Your task to perform on an android device: change the clock style Image 0: 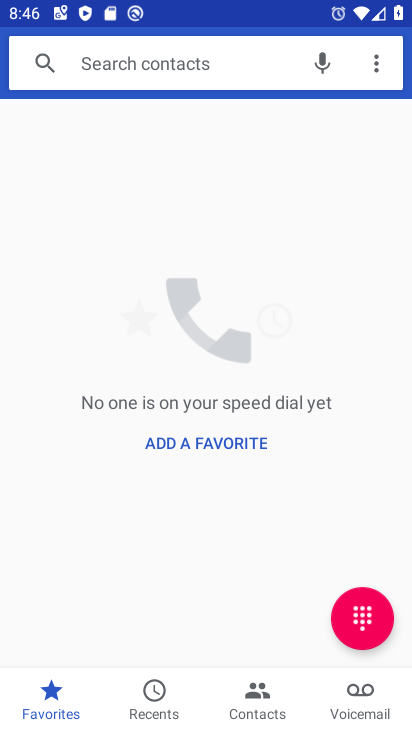
Step 0: drag from (237, 516) to (357, 133)
Your task to perform on an android device: change the clock style Image 1: 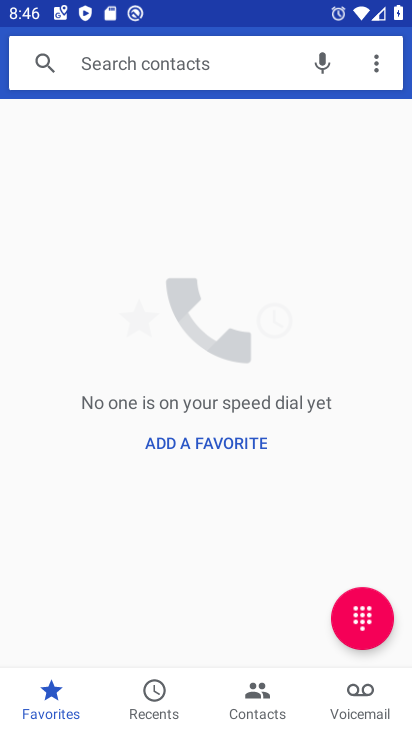
Step 1: press home button
Your task to perform on an android device: change the clock style Image 2: 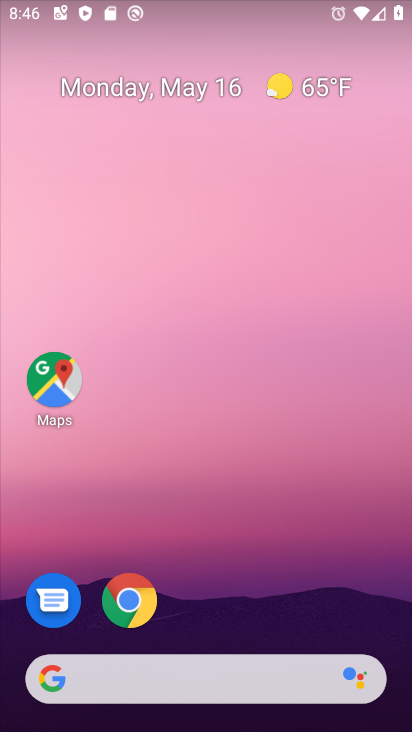
Step 2: drag from (255, 453) to (318, 3)
Your task to perform on an android device: change the clock style Image 3: 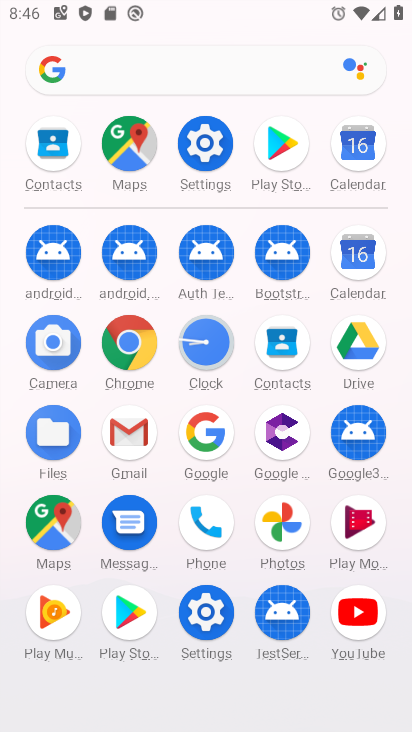
Step 3: click (209, 347)
Your task to perform on an android device: change the clock style Image 4: 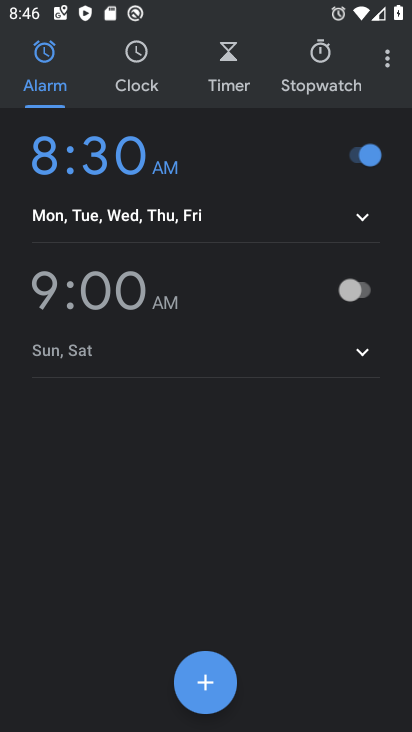
Step 4: click (392, 60)
Your task to perform on an android device: change the clock style Image 5: 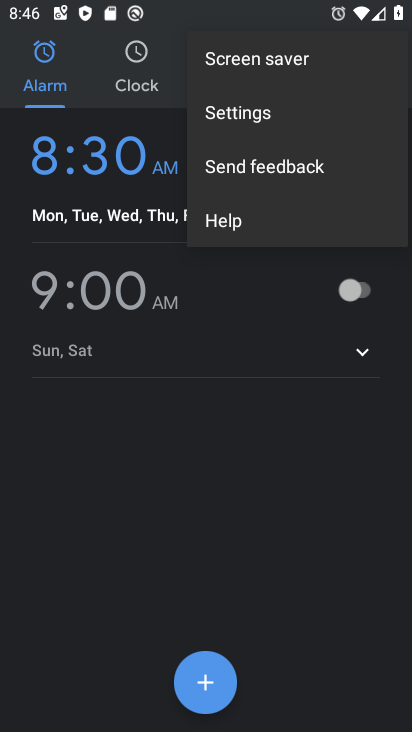
Step 5: click (274, 116)
Your task to perform on an android device: change the clock style Image 6: 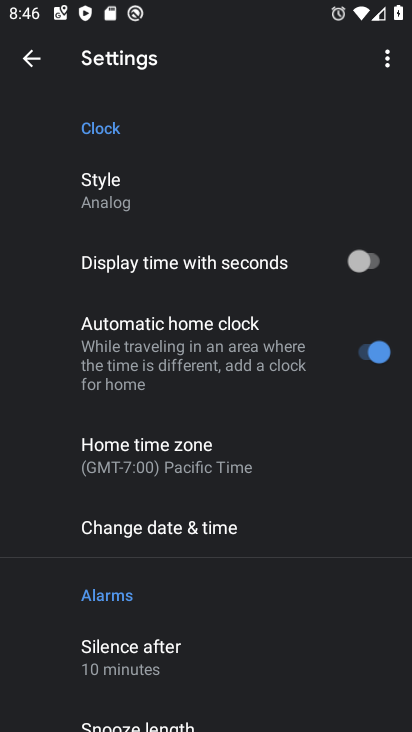
Step 6: click (121, 195)
Your task to perform on an android device: change the clock style Image 7: 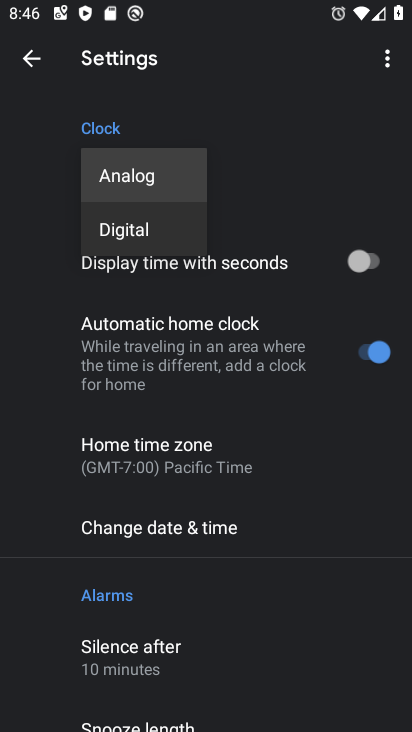
Step 7: click (135, 221)
Your task to perform on an android device: change the clock style Image 8: 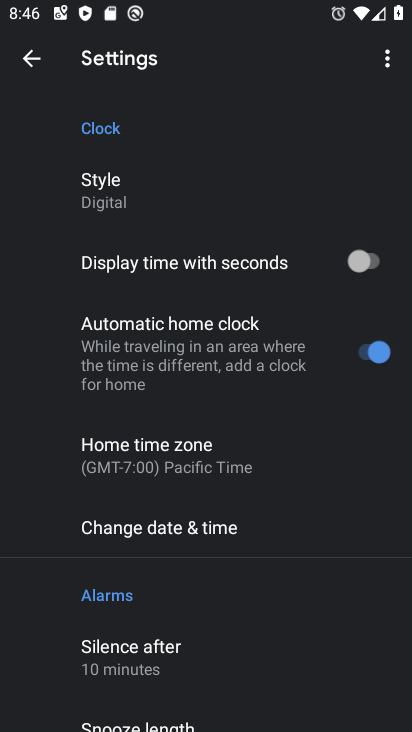
Step 8: task complete